Your task to perform on an android device: add a label to a message in the gmail app Image 0: 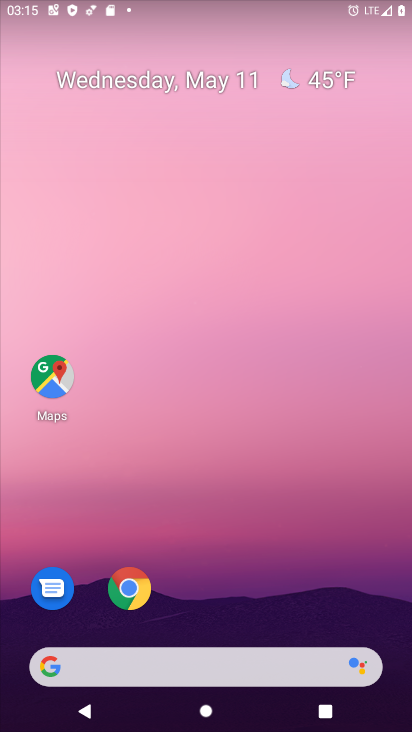
Step 0: drag from (214, 624) to (243, 268)
Your task to perform on an android device: add a label to a message in the gmail app Image 1: 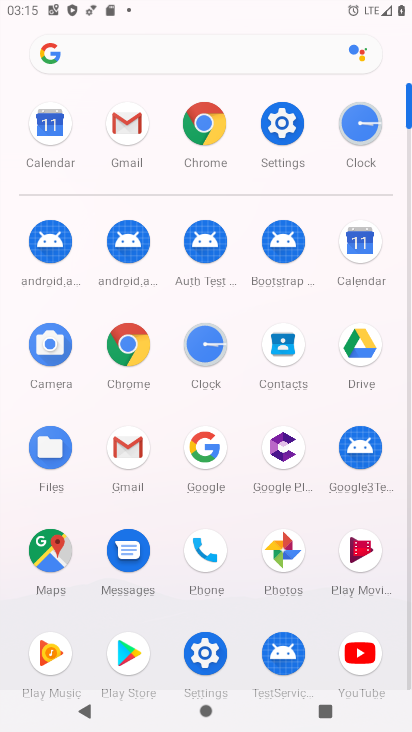
Step 1: click (136, 462)
Your task to perform on an android device: add a label to a message in the gmail app Image 2: 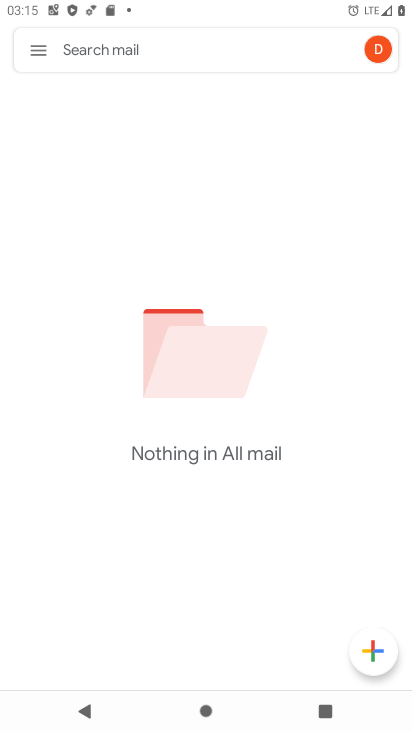
Step 2: click (46, 57)
Your task to perform on an android device: add a label to a message in the gmail app Image 3: 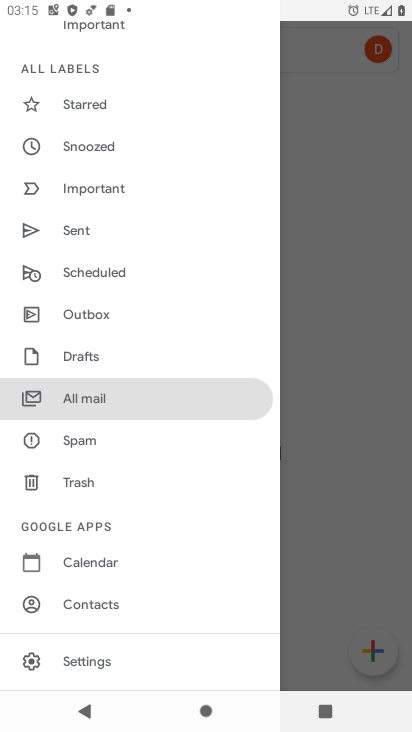
Step 3: click (84, 400)
Your task to perform on an android device: add a label to a message in the gmail app Image 4: 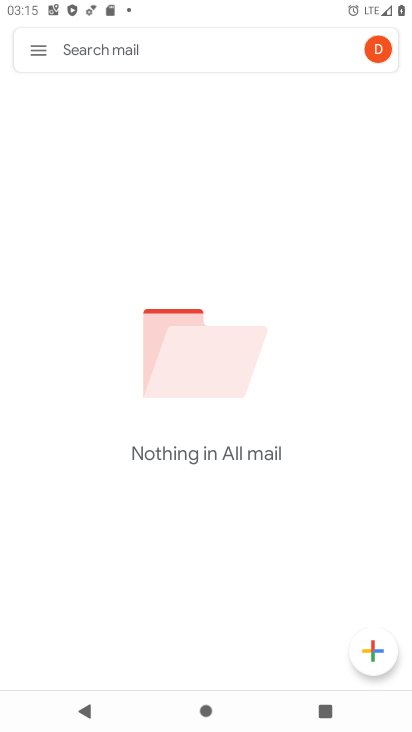
Step 4: task complete